Your task to perform on an android device: Open Chrome and go to settings Image 0: 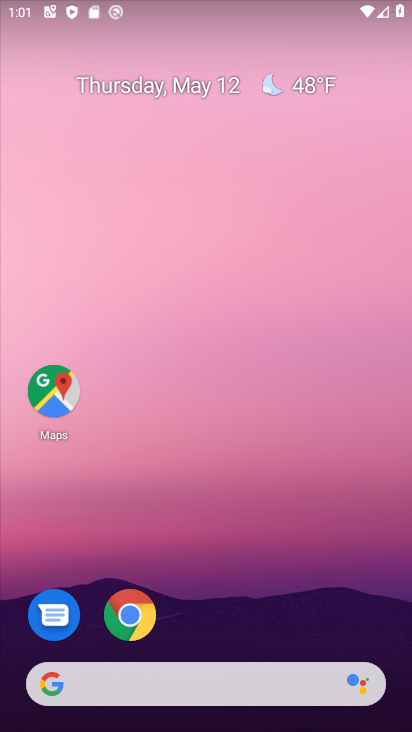
Step 0: drag from (278, 659) to (279, 36)
Your task to perform on an android device: Open Chrome and go to settings Image 1: 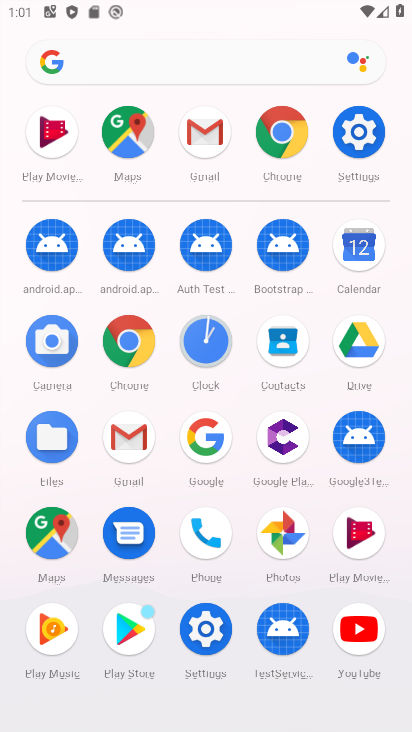
Step 1: click (127, 326)
Your task to perform on an android device: Open Chrome and go to settings Image 2: 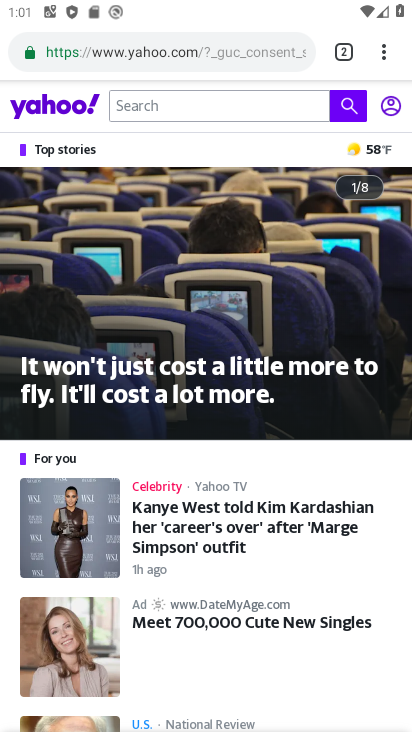
Step 2: click (388, 56)
Your task to perform on an android device: Open Chrome and go to settings Image 3: 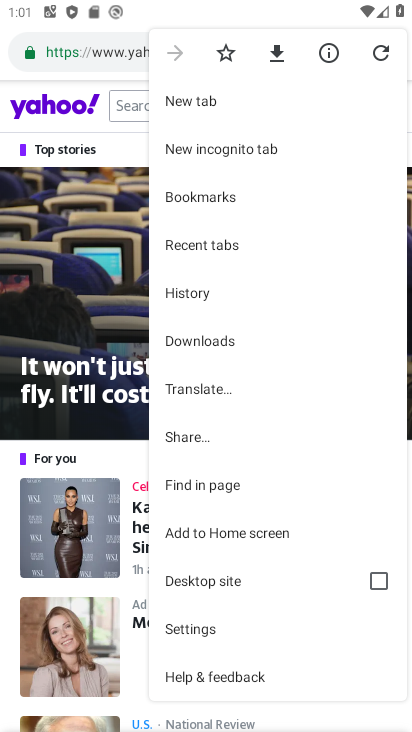
Step 3: click (264, 629)
Your task to perform on an android device: Open Chrome and go to settings Image 4: 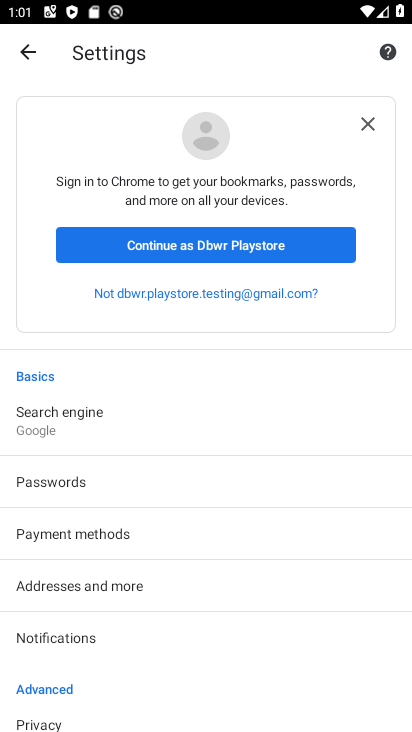
Step 4: task complete